Your task to perform on an android device: open sync settings in chrome Image 0: 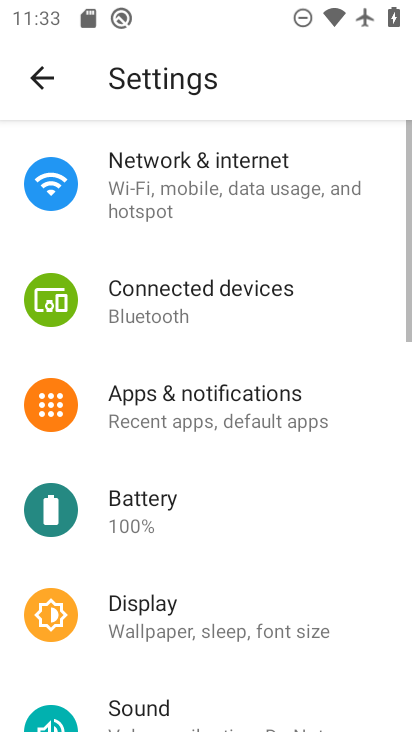
Step 0: press home button
Your task to perform on an android device: open sync settings in chrome Image 1: 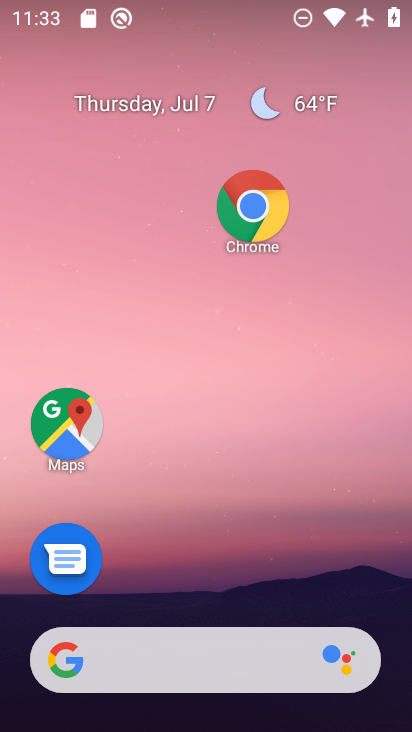
Step 1: drag from (154, 620) to (199, 277)
Your task to perform on an android device: open sync settings in chrome Image 2: 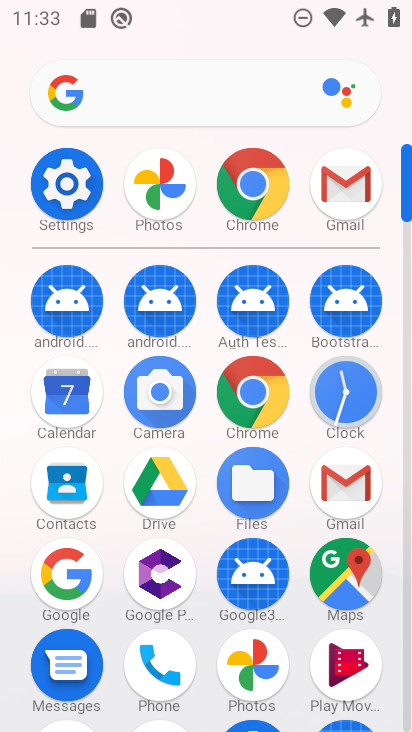
Step 2: click (269, 189)
Your task to perform on an android device: open sync settings in chrome Image 3: 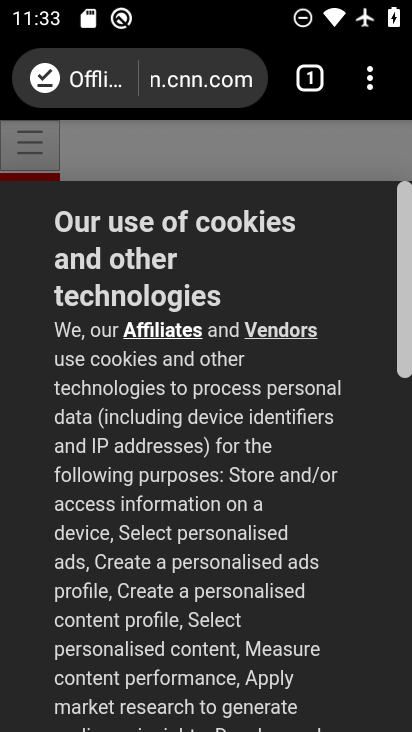
Step 3: drag from (210, 662) to (203, 248)
Your task to perform on an android device: open sync settings in chrome Image 4: 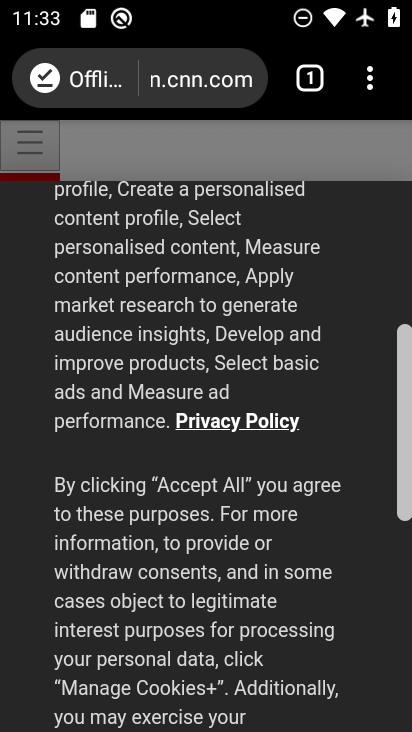
Step 4: click (359, 79)
Your task to perform on an android device: open sync settings in chrome Image 5: 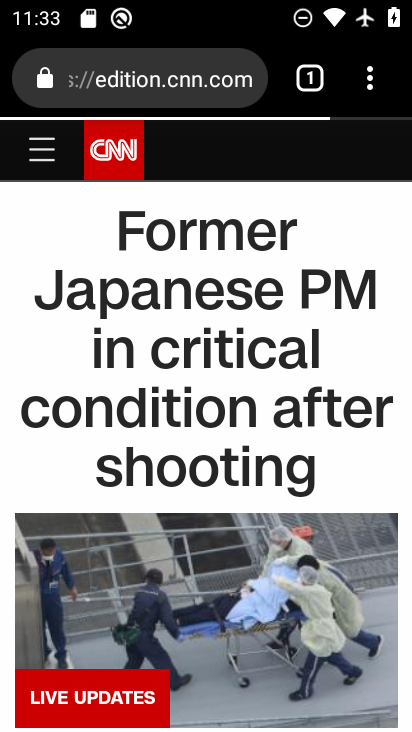
Step 5: click (370, 77)
Your task to perform on an android device: open sync settings in chrome Image 6: 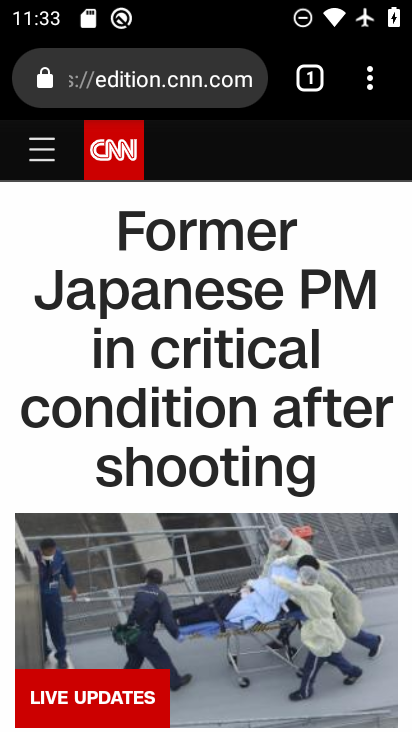
Step 6: click (370, 77)
Your task to perform on an android device: open sync settings in chrome Image 7: 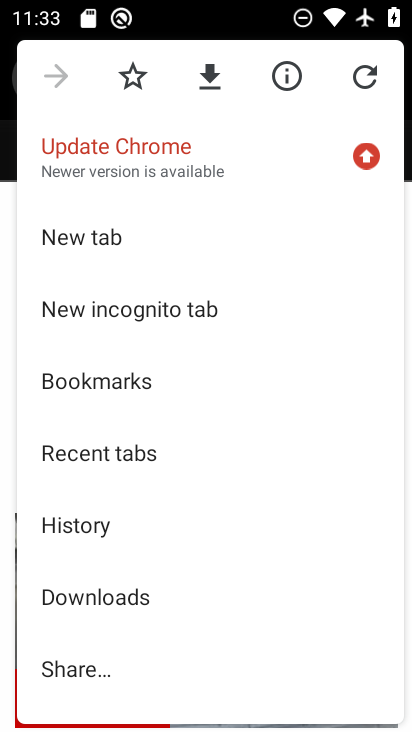
Step 7: drag from (137, 669) to (150, 246)
Your task to perform on an android device: open sync settings in chrome Image 8: 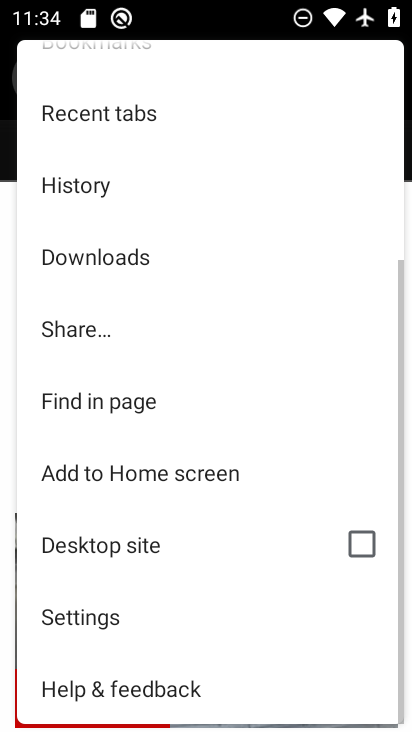
Step 8: click (72, 626)
Your task to perform on an android device: open sync settings in chrome Image 9: 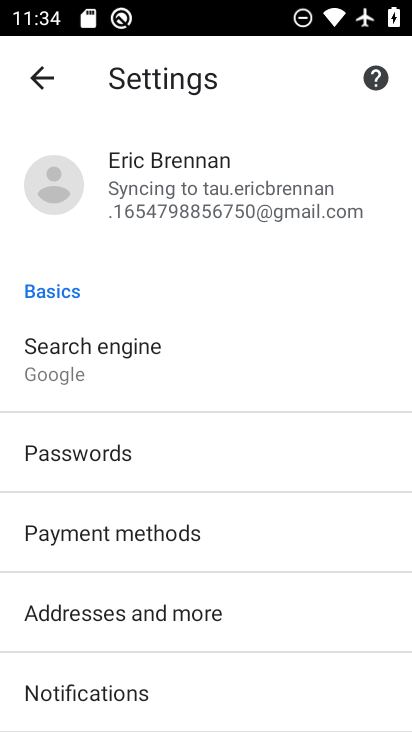
Step 9: click (192, 162)
Your task to perform on an android device: open sync settings in chrome Image 10: 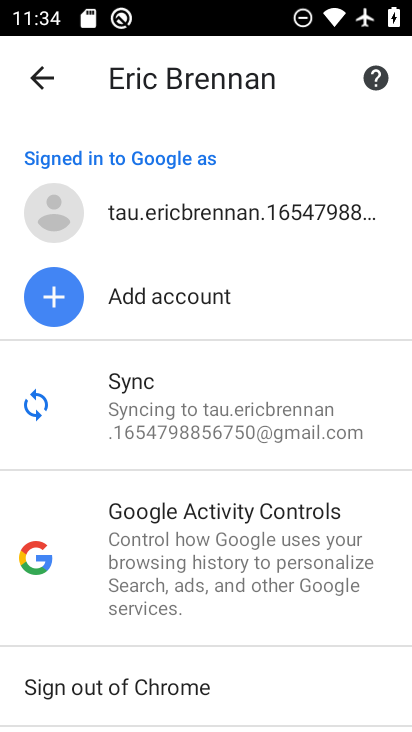
Step 10: click (161, 401)
Your task to perform on an android device: open sync settings in chrome Image 11: 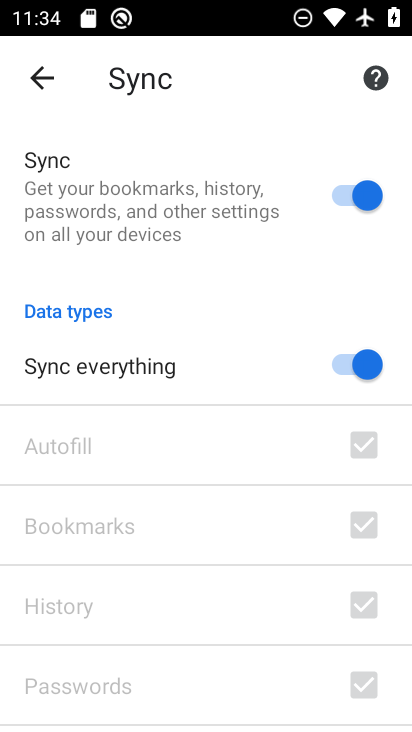
Step 11: task complete